Your task to perform on an android device: stop showing notifications on the lock screen Image 0: 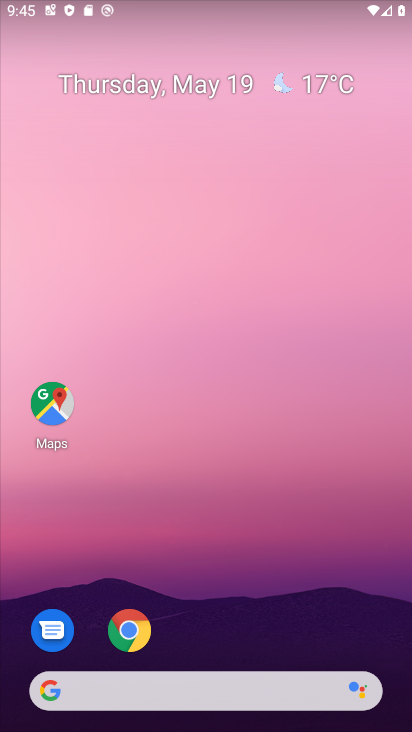
Step 0: drag from (224, 564) to (173, 174)
Your task to perform on an android device: stop showing notifications on the lock screen Image 1: 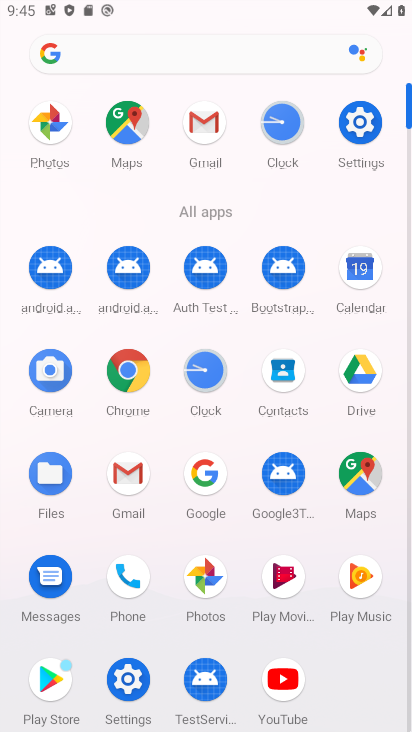
Step 1: click (360, 120)
Your task to perform on an android device: stop showing notifications on the lock screen Image 2: 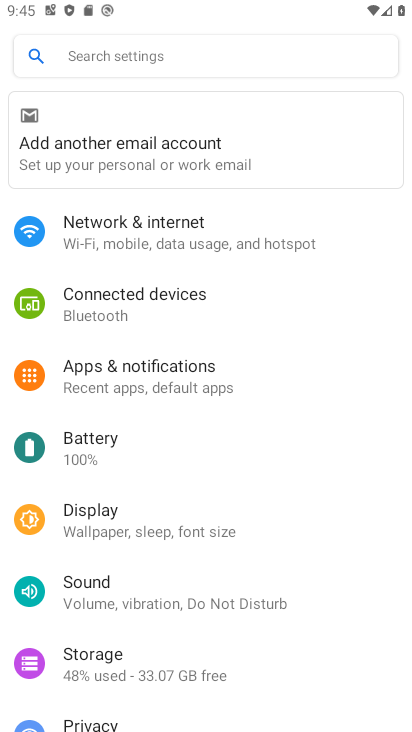
Step 2: click (148, 371)
Your task to perform on an android device: stop showing notifications on the lock screen Image 3: 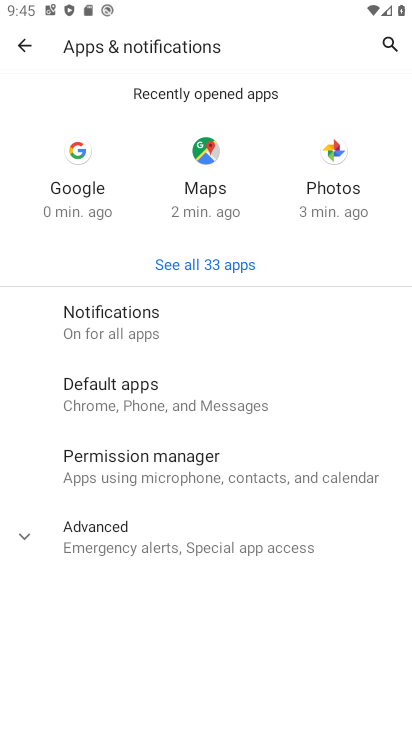
Step 3: click (85, 317)
Your task to perform on an android device: stop showing notifications on the lock screen Image 4: 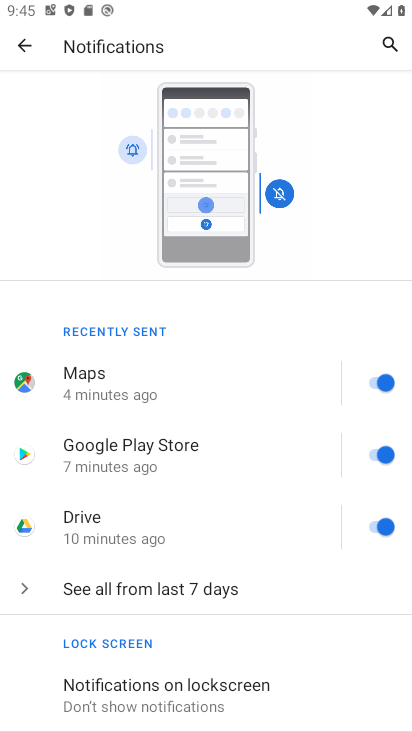
Step 4: drag from (204, 627) to (199, 391)
Your task to perform on an android device: stop showing notifications on the lock screen Image 5: 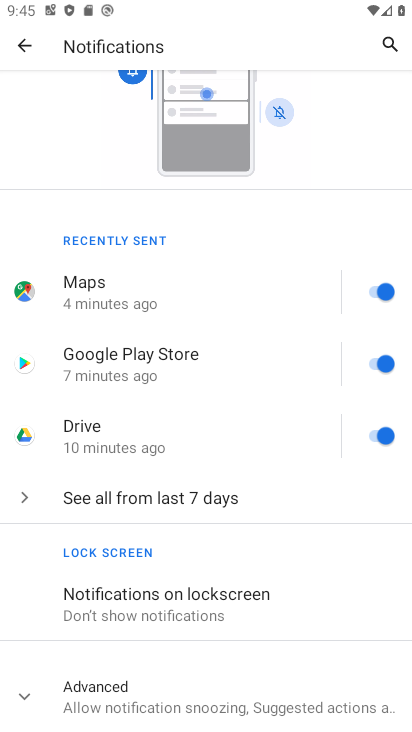
Step 5: click (162, 591)
Your task to perform on an android device: stop showing notifications on the lock screen Image 6: 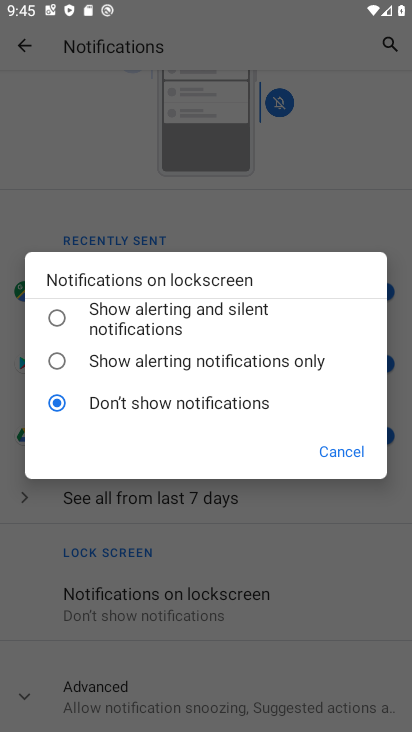
Step 6: task complete